Your task to perform on an android device: set default search engine in the chrome app Image 0: 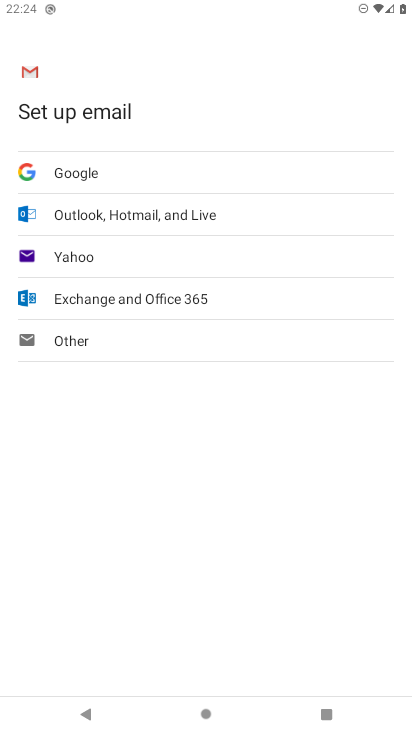
Step 0: press home button
Your task to perform on an android device: set default search engine in the chrome app Image 1: 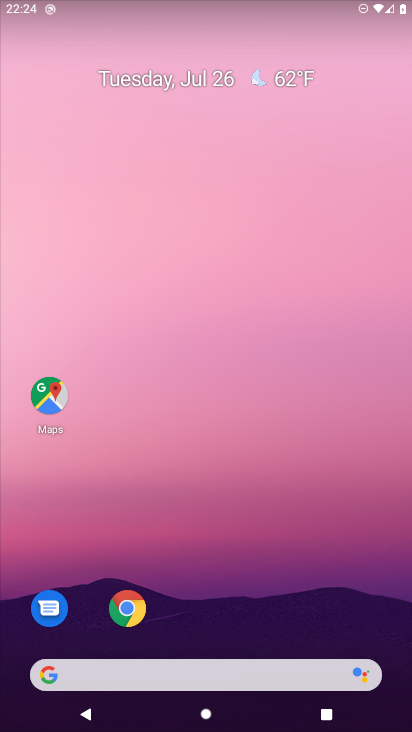
Step 1: click (143, 611)
Your task to perform on an android device: set default search engine in the chrome app Image 2: 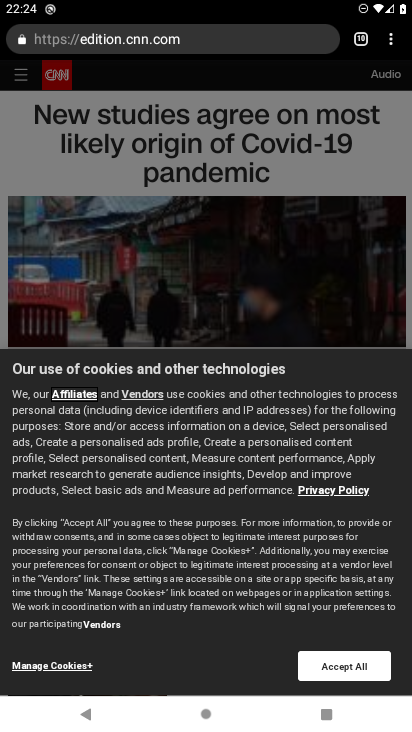
Step 2: click (394, 34)
Your task to perform on an android device: set default search engine in the chrome app Image 3: 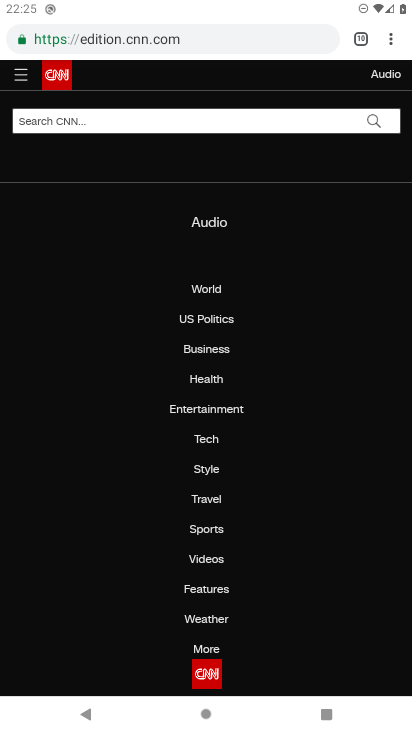
Step 3: click (391, 39)
Your task to perform on an android device: set default search engine in the chrome app Image 4: 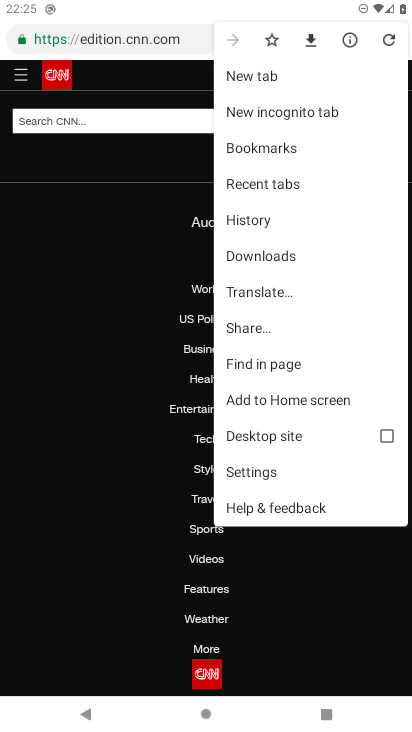
Step 4: click (246, 477)
Your task to perform on an android device: set default search engine in the chrome app Image 5: 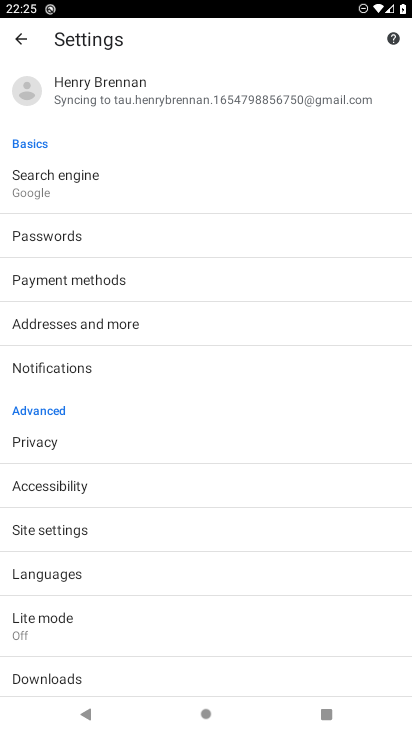
Step 5: task complete